Your task to perform on an android device: change alarm snooze length Image 0: 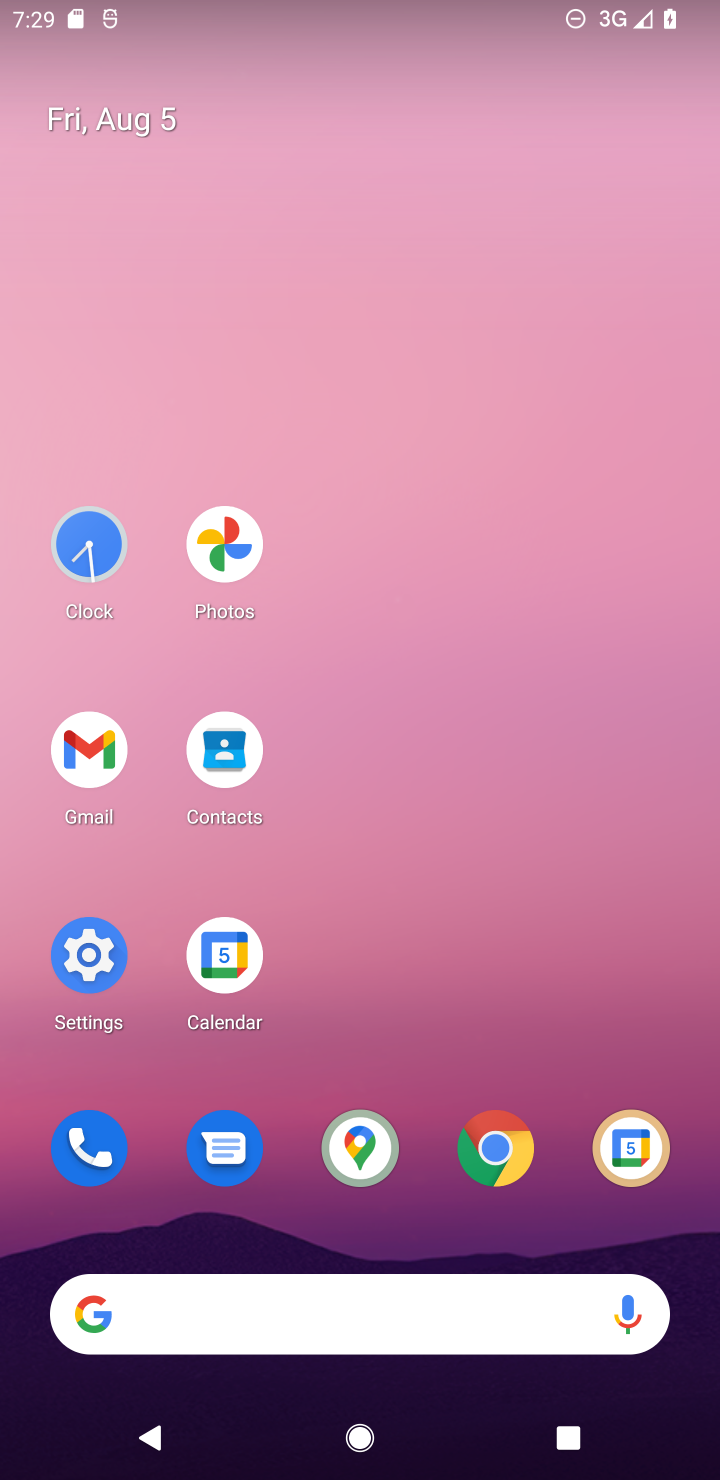
Step 0: click (83, 543)
Your task to perform on an android device: change alarm snooze length Image 1: 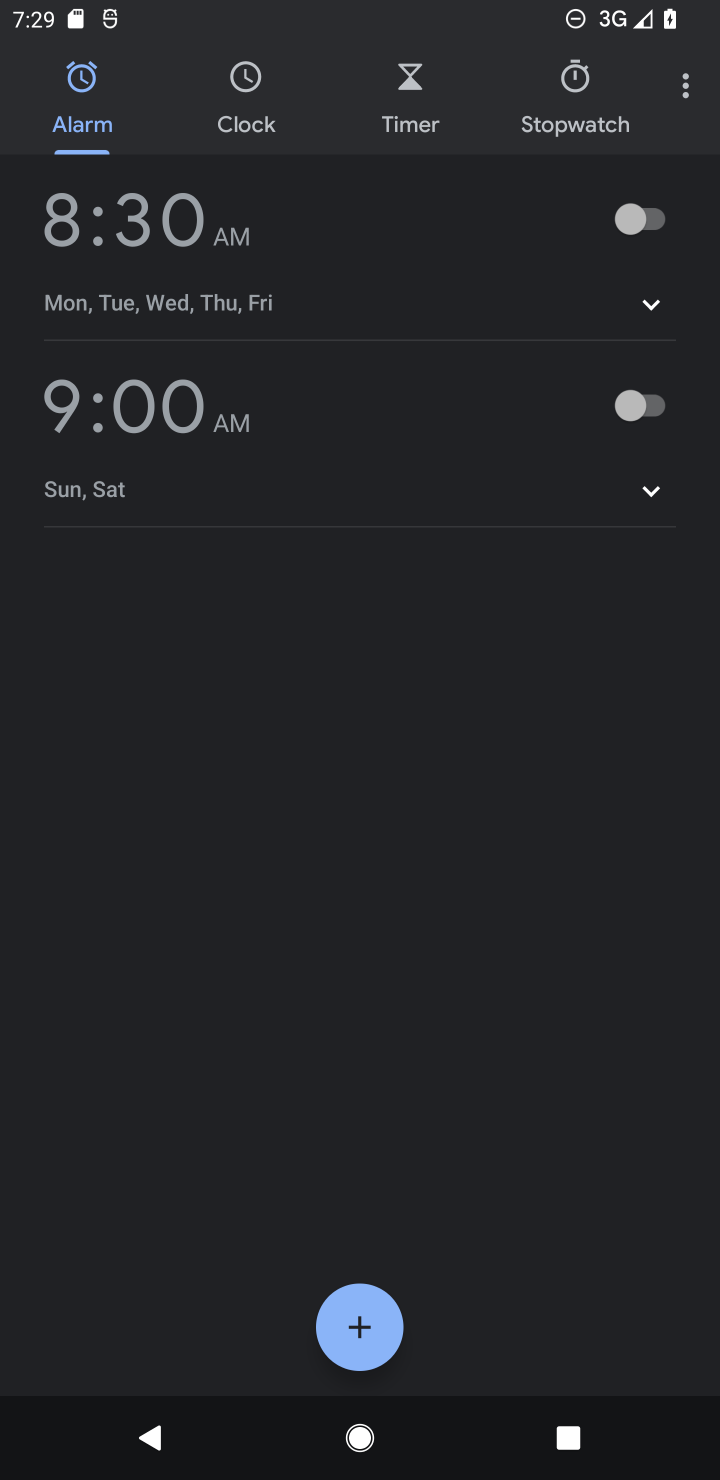
Step 1: click (692, 78)
Your task to perform on an android device: change alarm snooze length Image 2: 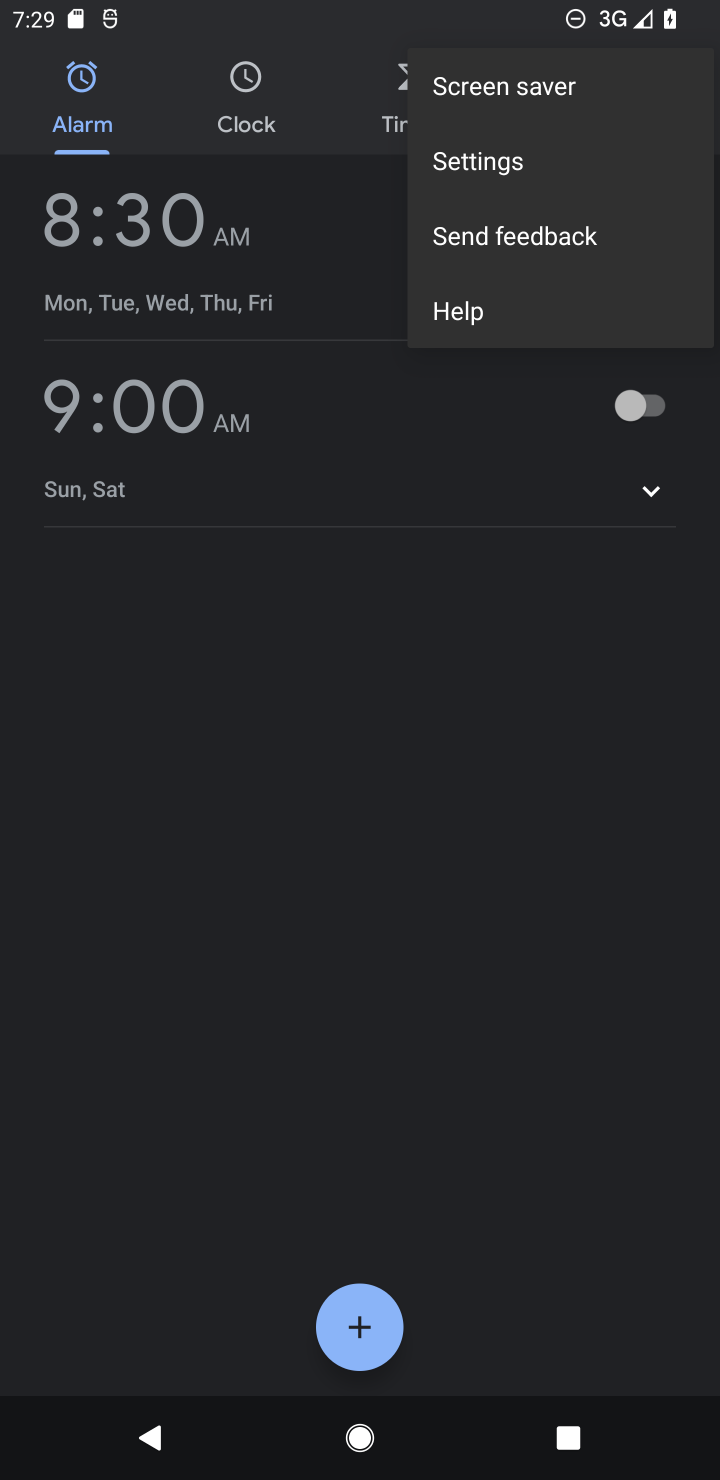
Step 2: click (505, 168)
Your task to perform on an android device: change alarm snooze length Image 3: 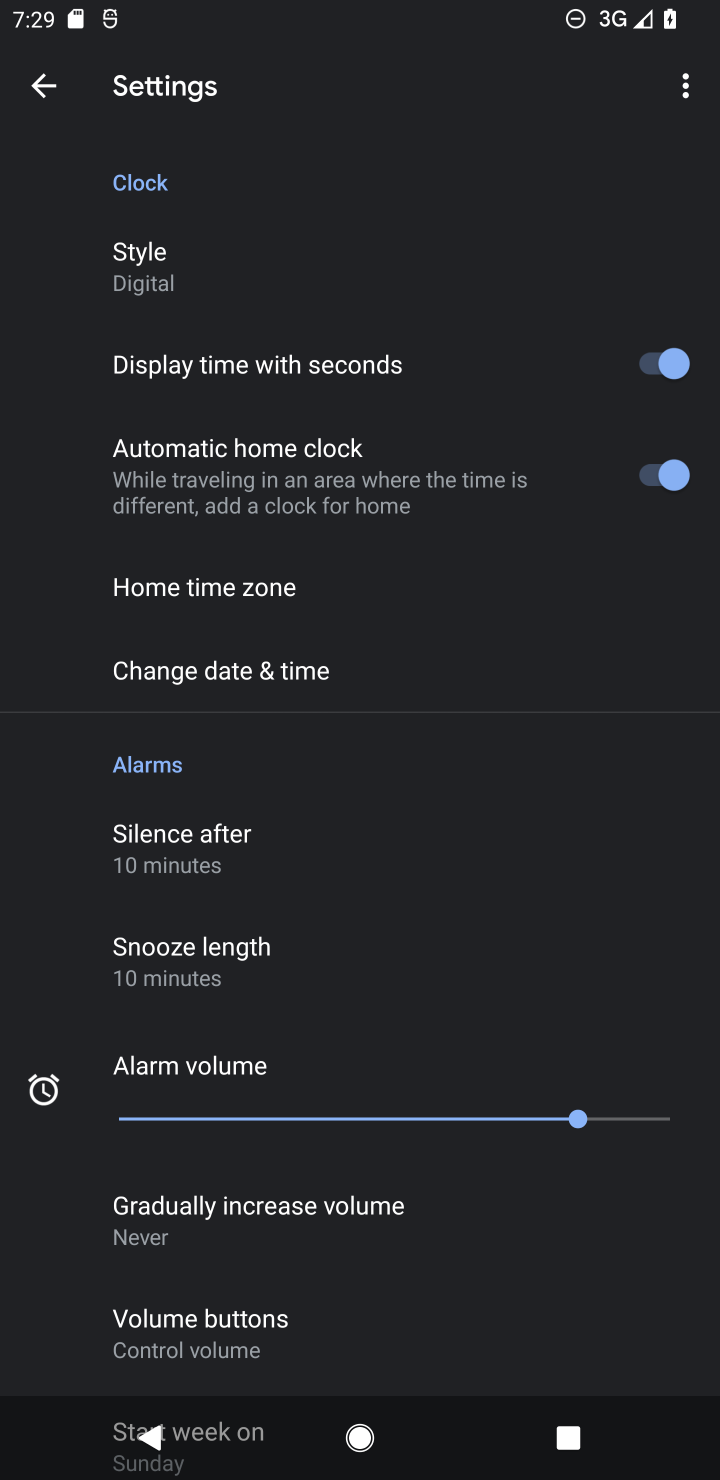
Step 3: click (188, 944)
Your task to perform on an android device: change alarm snooze length Image 4: 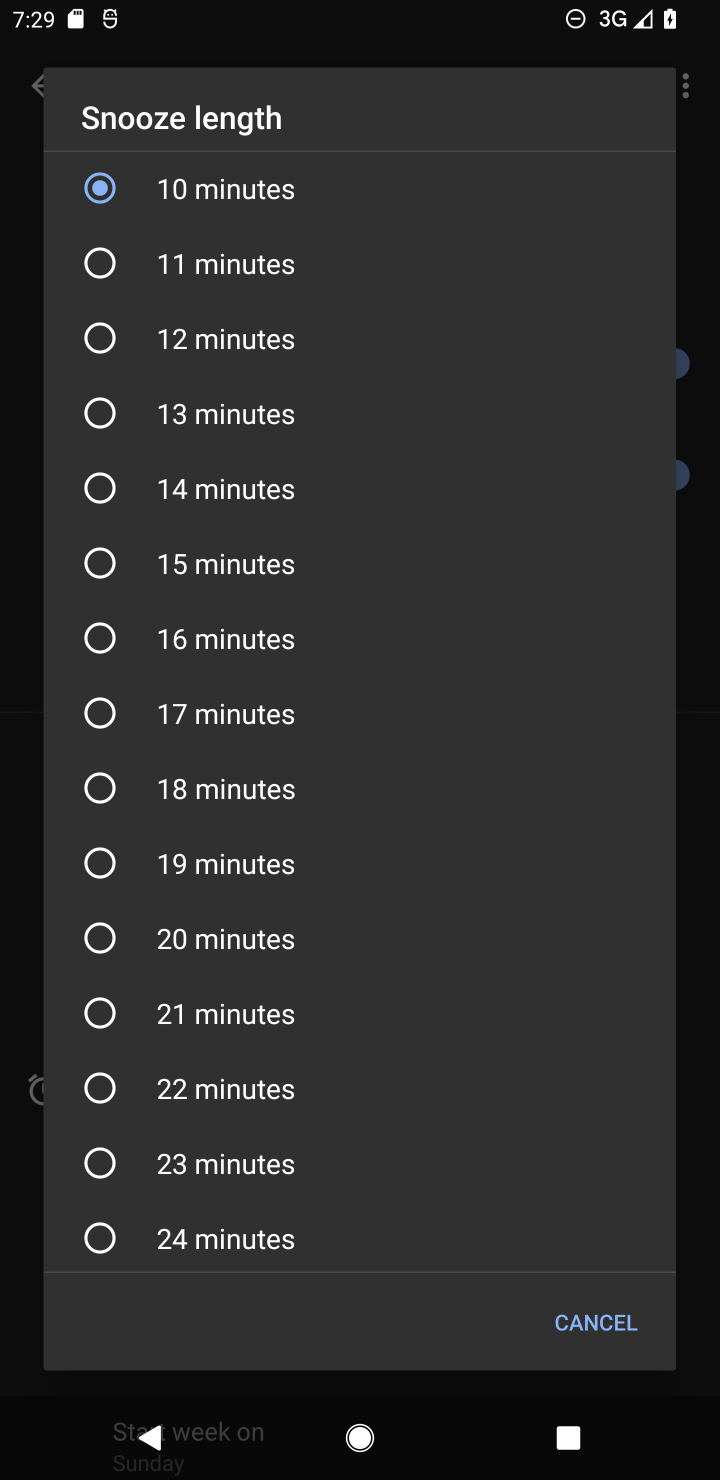
Step 4: click (103, 482)
Your task to perform on an android device: change alarm snooze length Image 5: 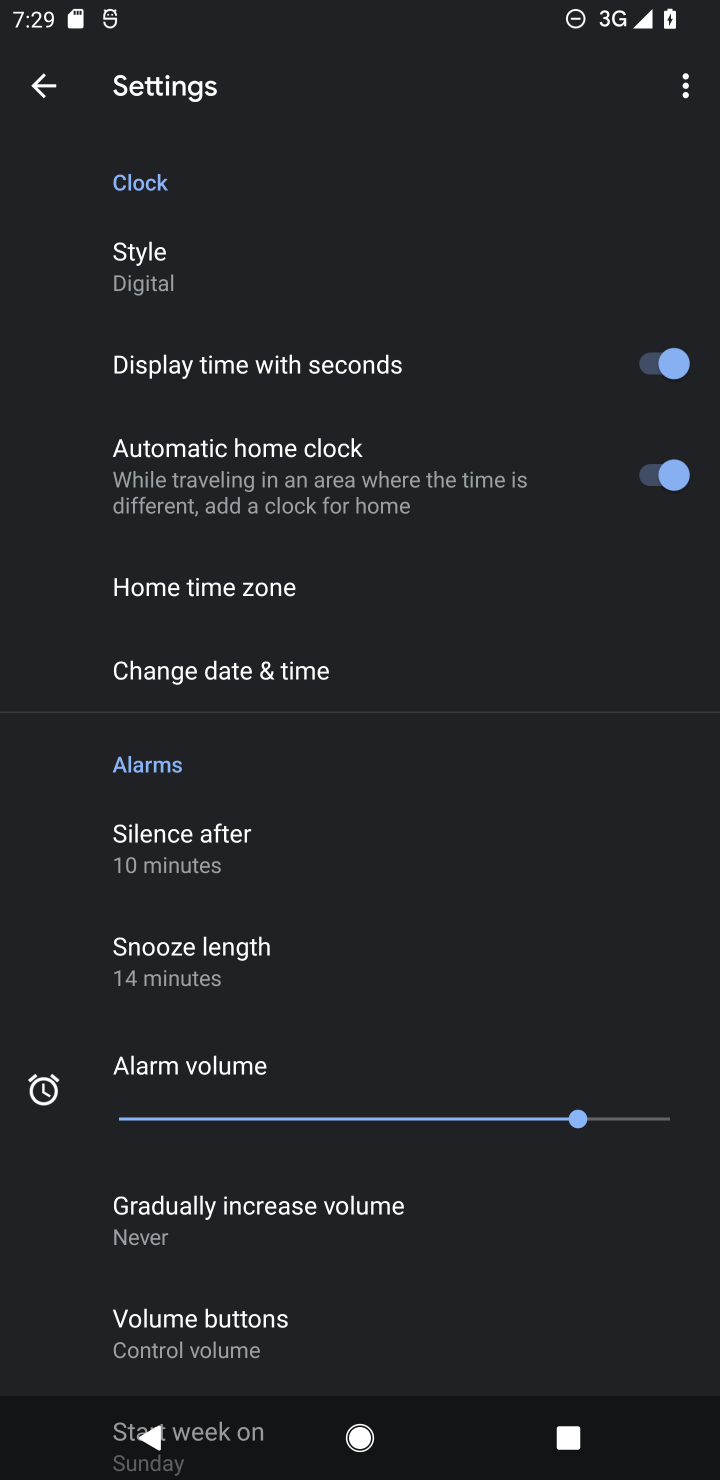
Step 5: task complete